Your task to perform on an android device: Open Google Image 0: 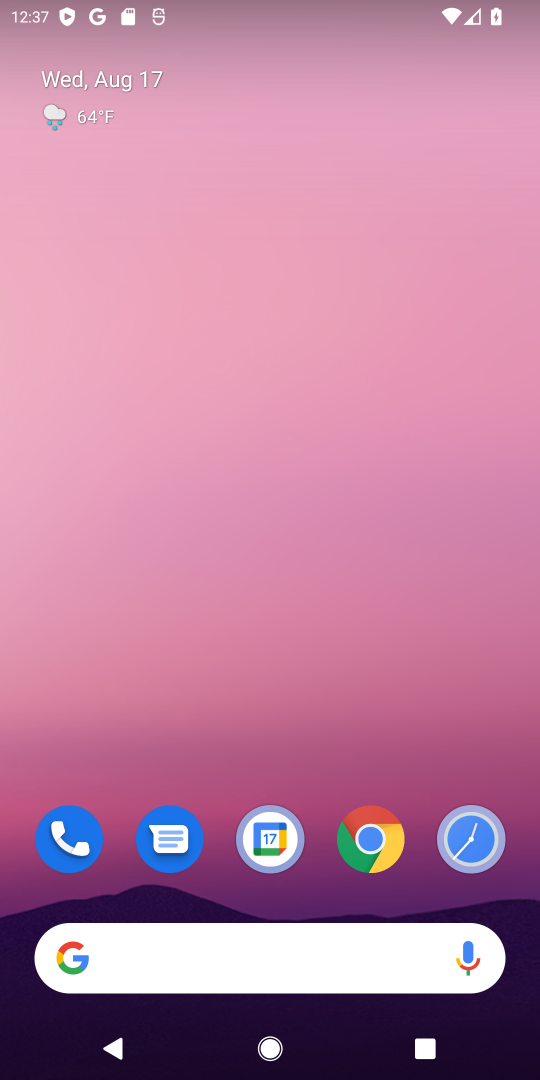
Step 0: drag from (228, 976) to (340, 316)
Your task to perform on an android device: Open Google Image 1: 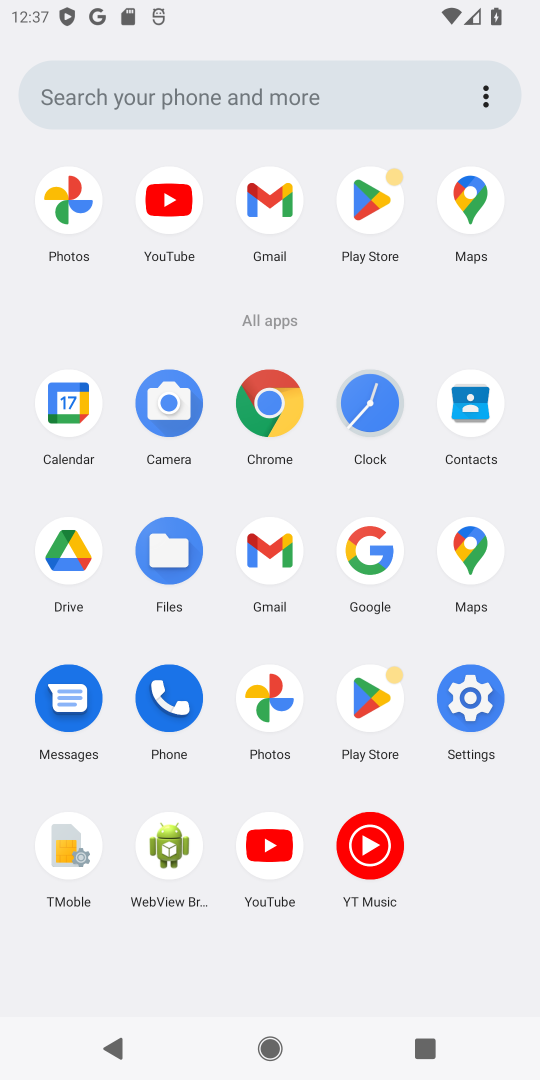
Step 1: click (364, 549)
Your task to perform on an android device: Open Google Image 2: 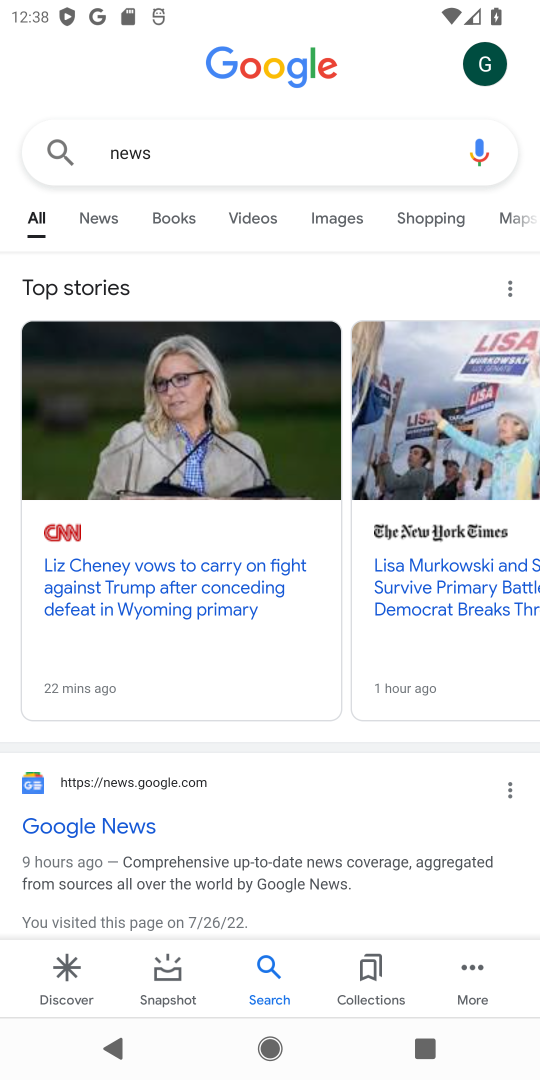
Step 2: task complete